Your task to perform on an android device: What is the recent news? Image 0: 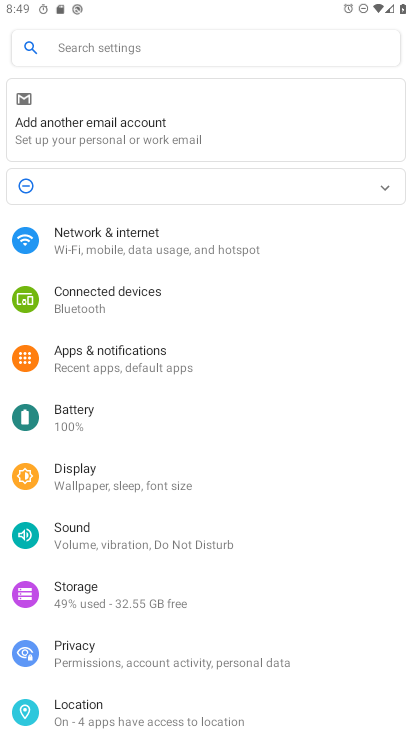
Step 0: press home button
Your task to perform on an android device: What is the recent news? Image 1: 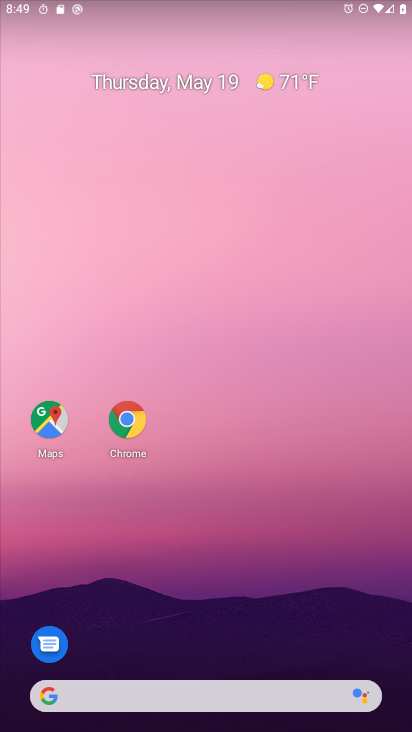
Step 1: drag from (104, 661) to (160, 360)
Your task to perform on an android device: What is the recent news? Image 2: 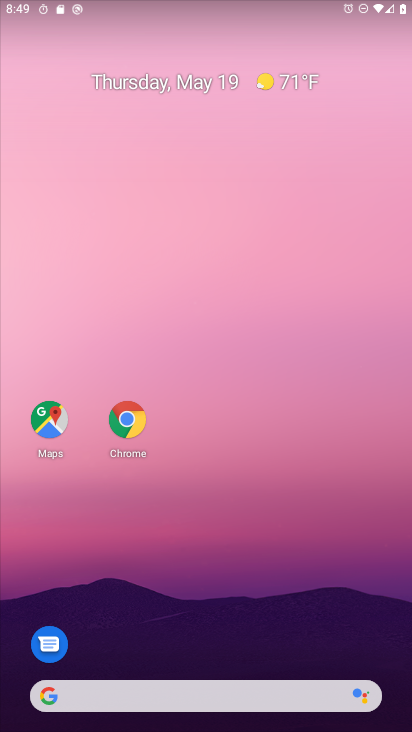
Step 2: drag from (209, 677) to (230, 203)
Your task to perform on an android device: What is the recent news? Image 3: 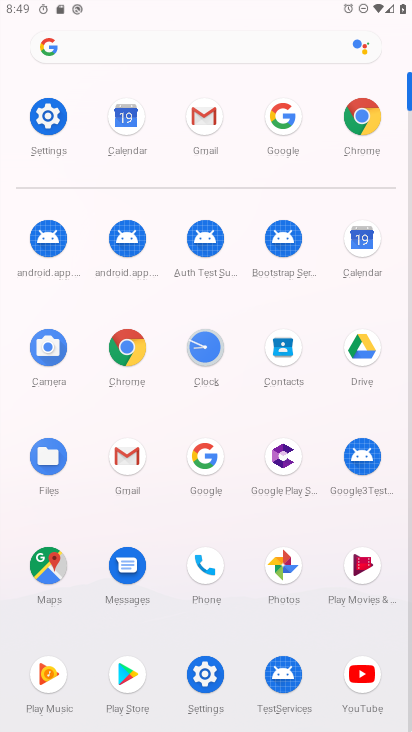
Step 3: click (208, 468)
Your task to perform on an android device: What is the recent news? Image 4: 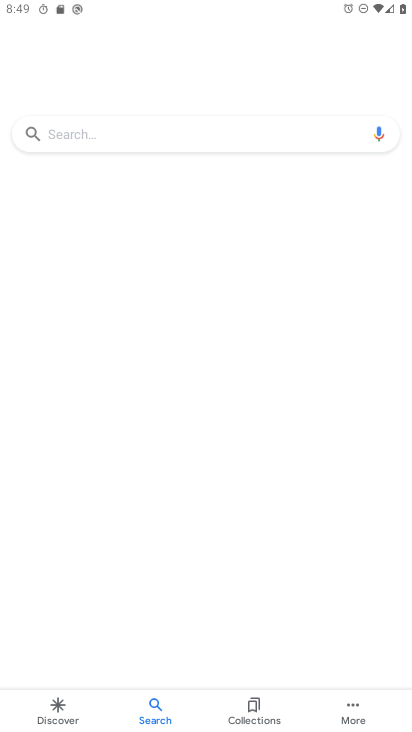
Step 4: click (130, 130)
Your task to perform on an android device: What is the recent news? Image 5: 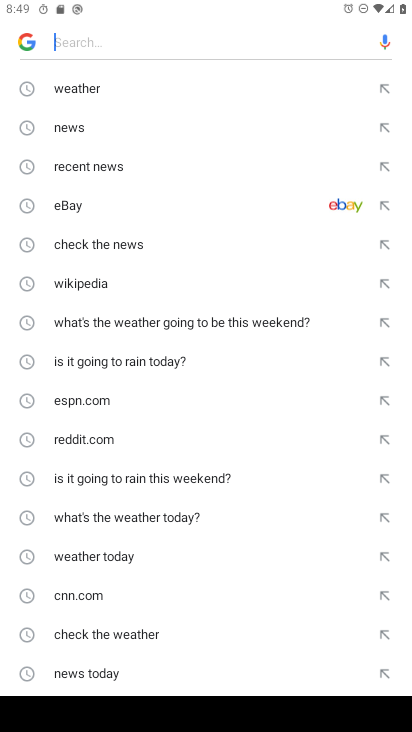
Step 5: click (91, 169)
Your task to perform on an android device: What is the recent news? Image 6: 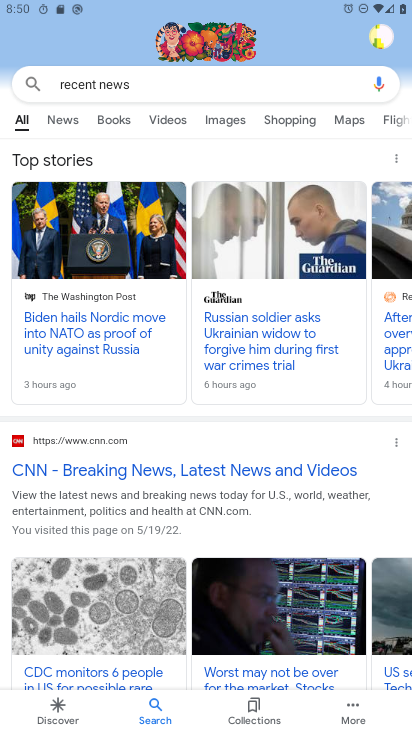
Step 6: task complete